Your task to perform on an android device: What's the news? Image 0: 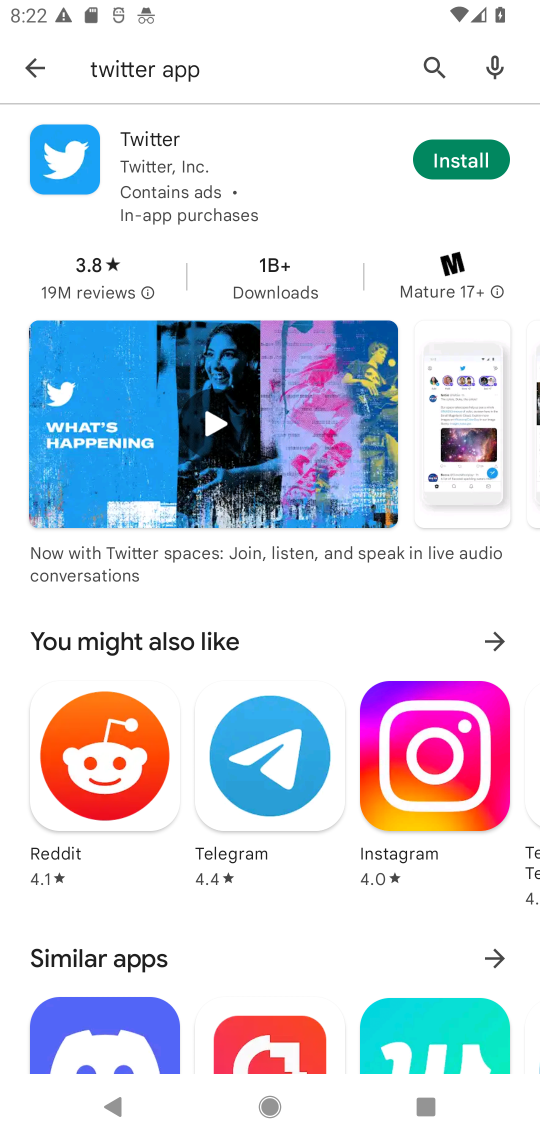
Step 0: press home button
Your task to perform on an android device: What's the news? Image 1: 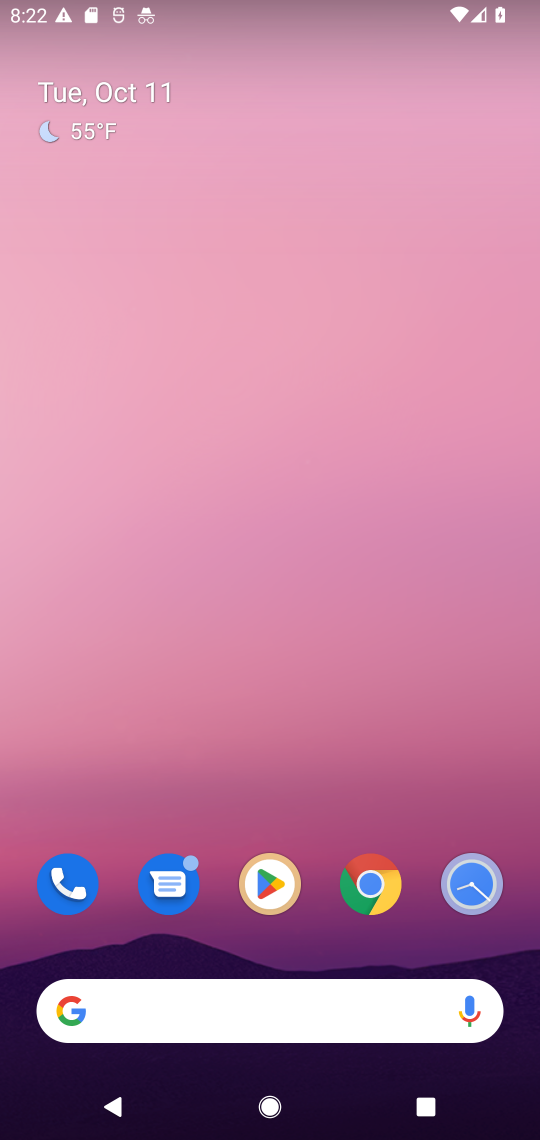
Step 1: drag from (312, 878) to (268, 237)
Your task to perform on an android device: What's the news? Image 2: 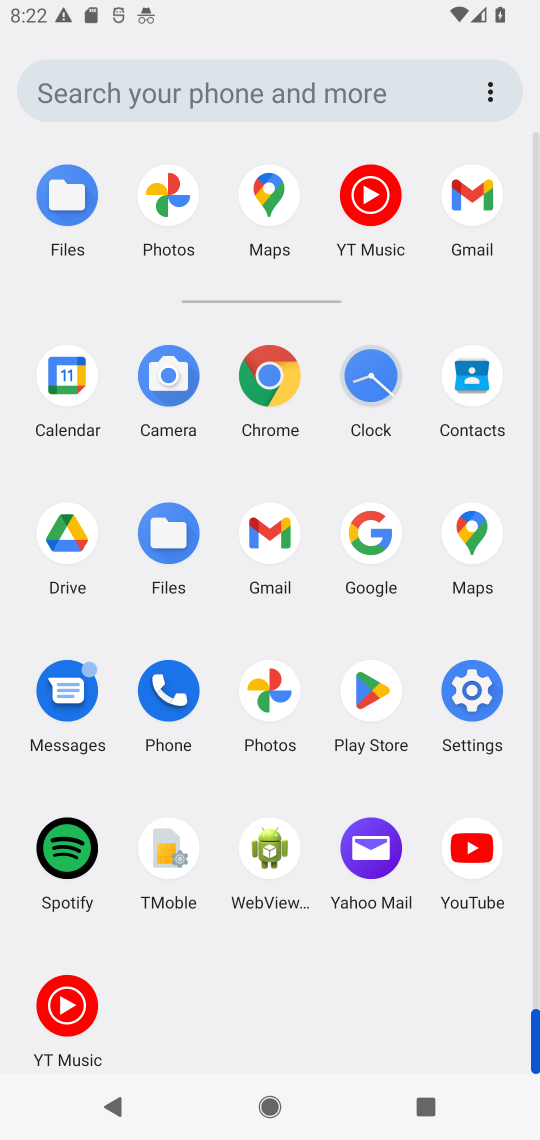
Step 2: click (264, 377)
Your task to perform on an android device: What's the news? Image 3: 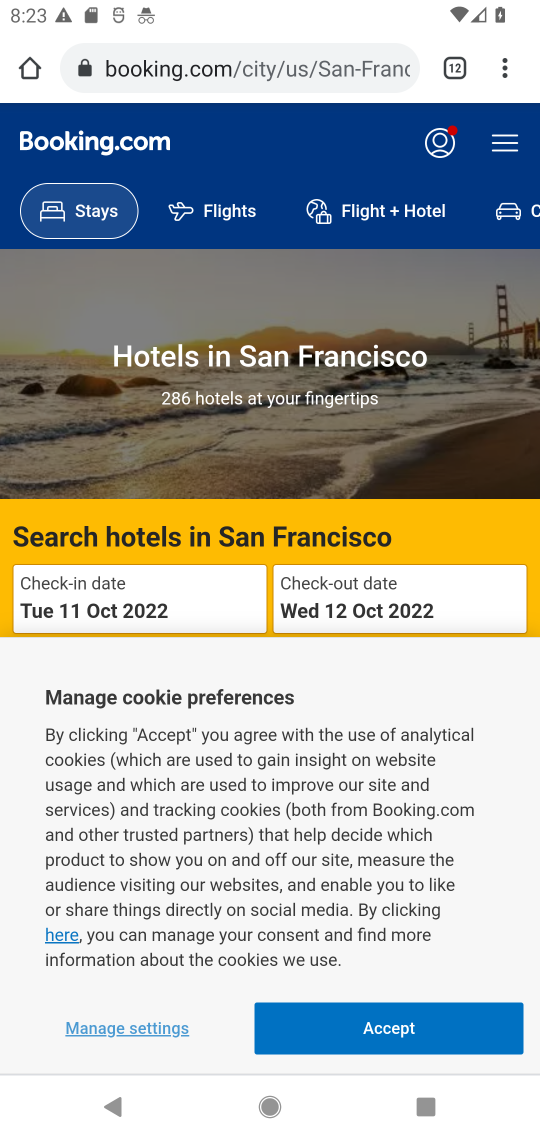
Step 3: task complete